Your task to perform on an android device: Open Android settings Image 0: 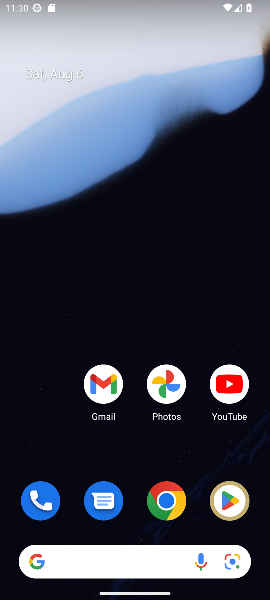
Step 0: drag from (90, 444) to (97, 165)
Your task to perform on an android device: Open Android settings Image 1: 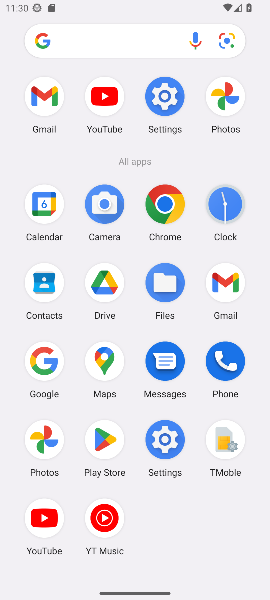
Step 1: click (161, 96)
Your task to perform on an android device: Open Android settings Image 2: 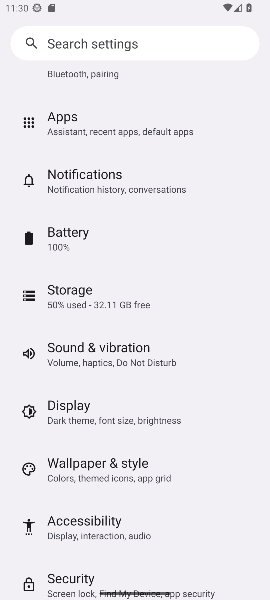
Step 2: drag from (78, 438) to (90, 4)
Your task to perform on an android device: Open Android settings Image 3: 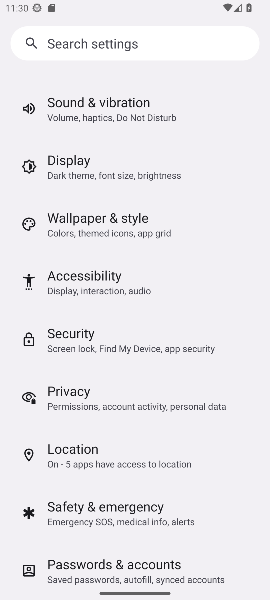
Step 3: drag from (75, 554) to (101, 256)
Your task to perform on an android device: Open Android settings Image 4: 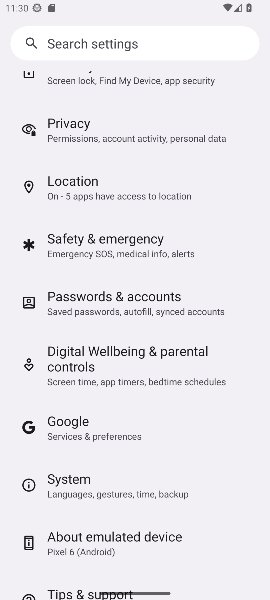
Step 4: drag from (99, 531) to (107, 172)
Your task to perform on an android device: Open Android settings Image 5: 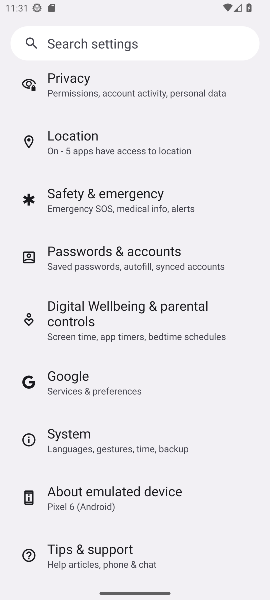
Step 5: click (100, 502)
Your task to perform on an android device: Open Android settings Image 6: 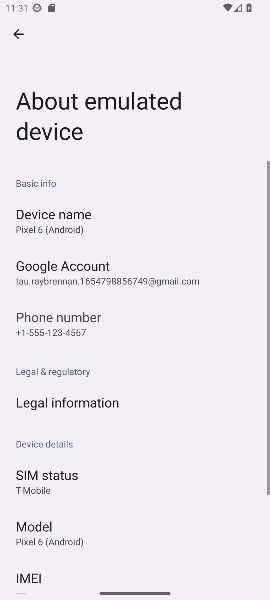
Step 6: drag from (90, 415) to (89, 265)
Your task to perform on an android device: Open Android settings Image 7: 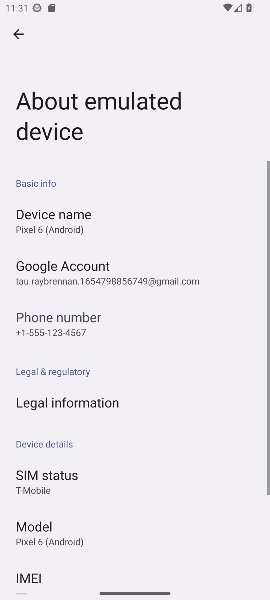
Step 7: drag from (79, 513) to (81, 226)
Your task to perform on an android device: Open Android settings Image 8: 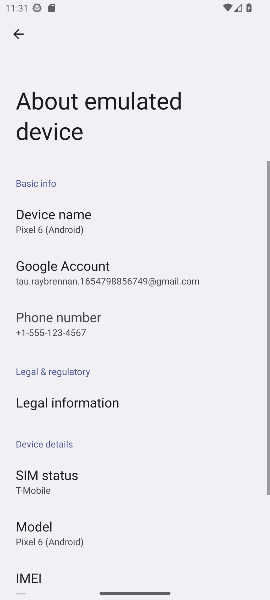
Step 8: drag from (64, 455) to (57, 314)
Your task to perform on an android device: Open Android settings Image 9: 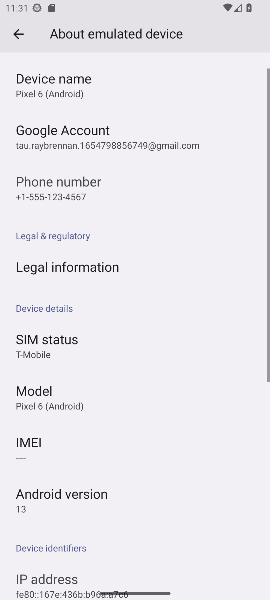
Step 9: click (51, 509)
Your task to perform on an android device: Open Android settings Image 10: 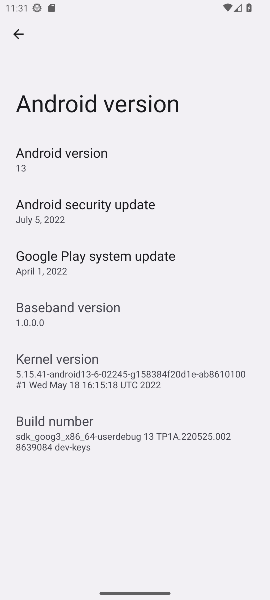
Step 10: task complete